Your task to perform on an android device: check android version Image 0: 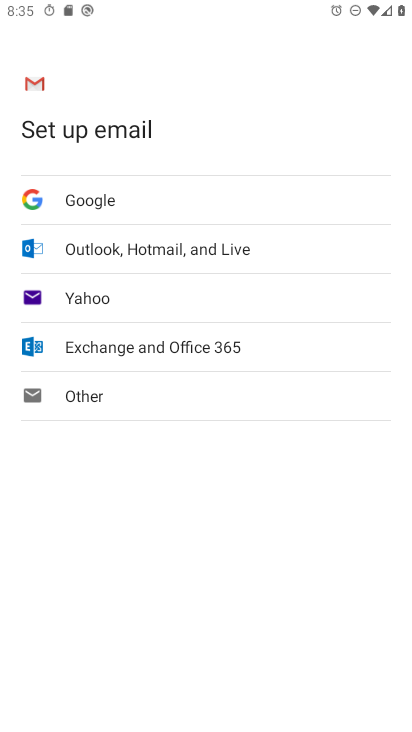
Step 0: press home button
Your task to perform on an android device: check android version Image 1: 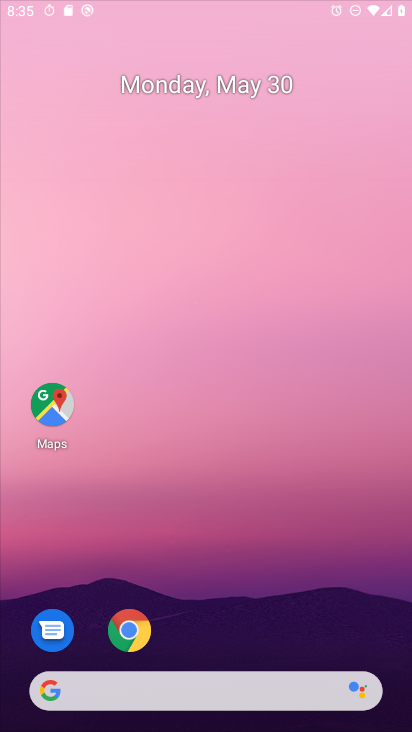
Step 1: drag from (348, 643) to (237, 37)
Your task to perform on an android device: check android version Image 2: 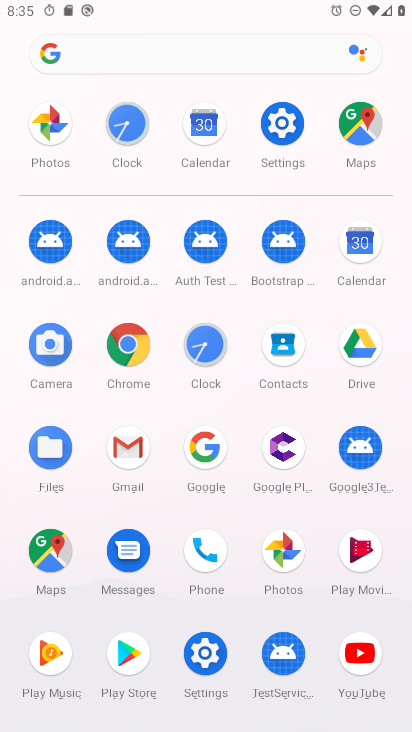
Step 2: click (281, 105)
Your task to perform on an android device: check android version Image 3: 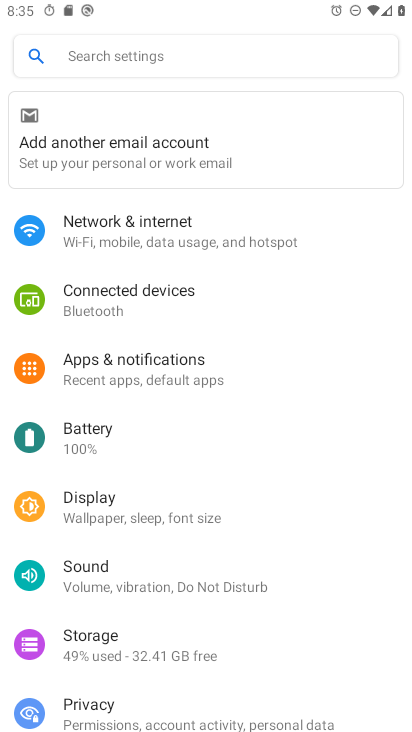
Step 3: drag from (144, 670) to (205, 142)
Your task to perform on an android device: check android version Image 4: 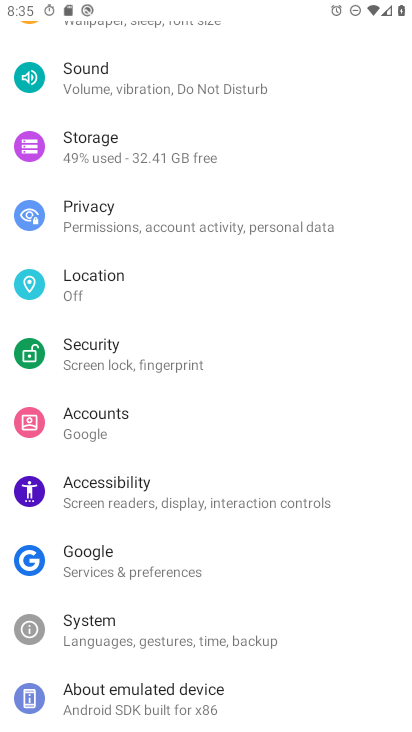
Step 4: drag from (133, 686) to (187, 146)
Your task to perform on an android device: check android version Image 5: 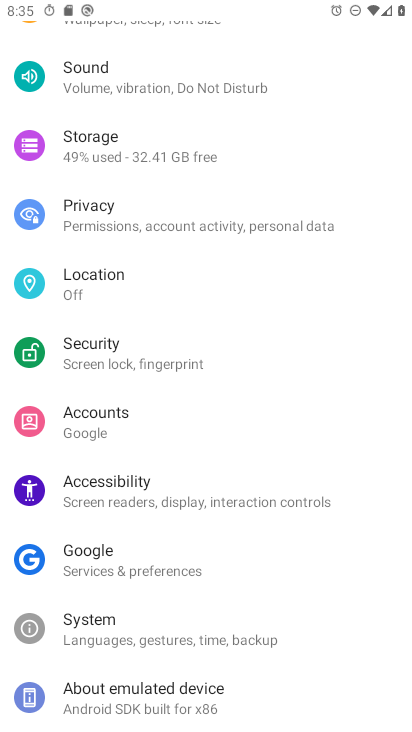
Step 5: click (157, 689)
Your task to perform on an android device: check android version Image 6: 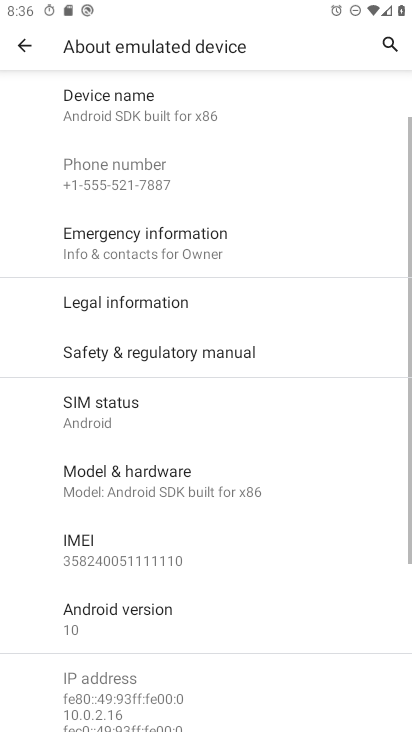
Step 6: click (171, 632)
Your task to perform on an android device: check android version Image 7: 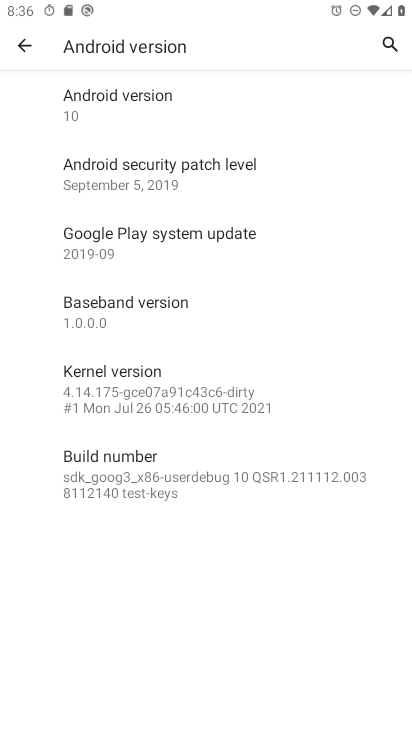
Step 7: task complete